Your task to perform on an android device: allow notifications from all sites in the chrome app Image 0: 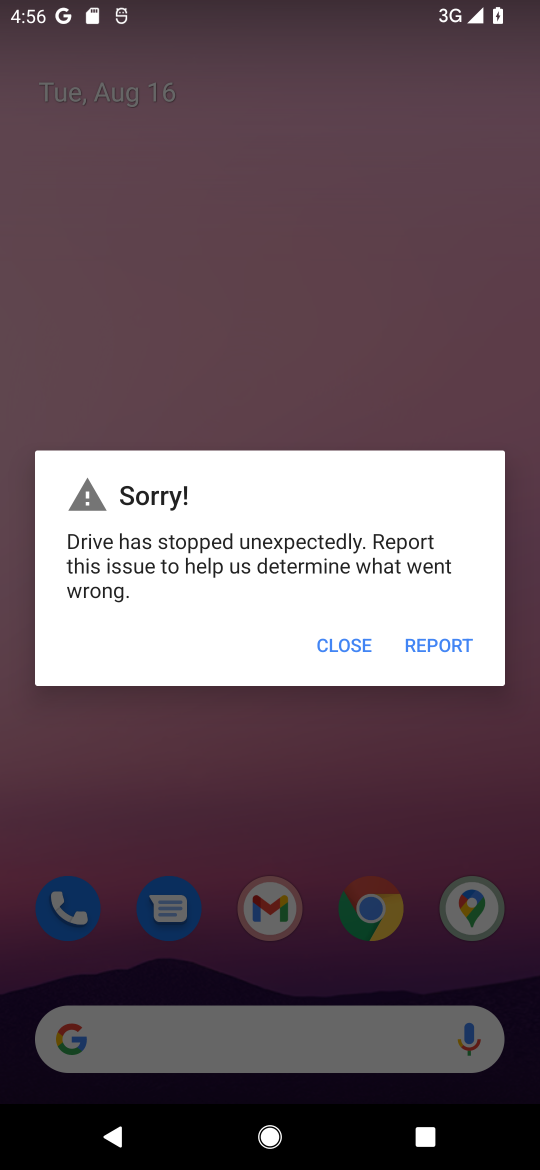
Step 0: click (341, 657)
Your task to perform on an android device: allow notifications from all sites in the chrome app Image 1: 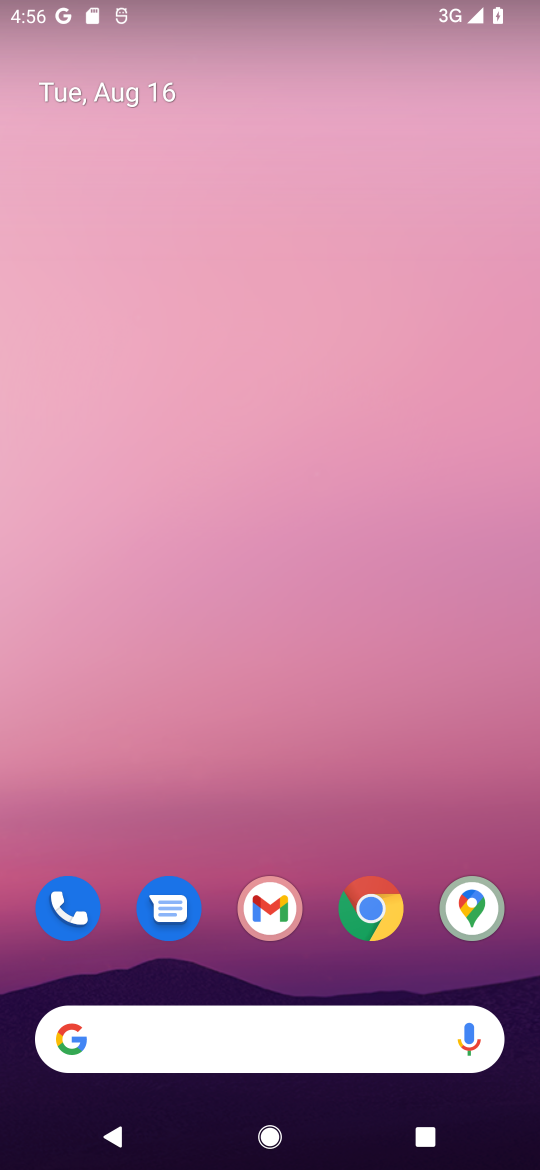
Step 1: click (382, 917)
Your task to perform on an android device: allow notifications from all sites in the chrome app Image 2: 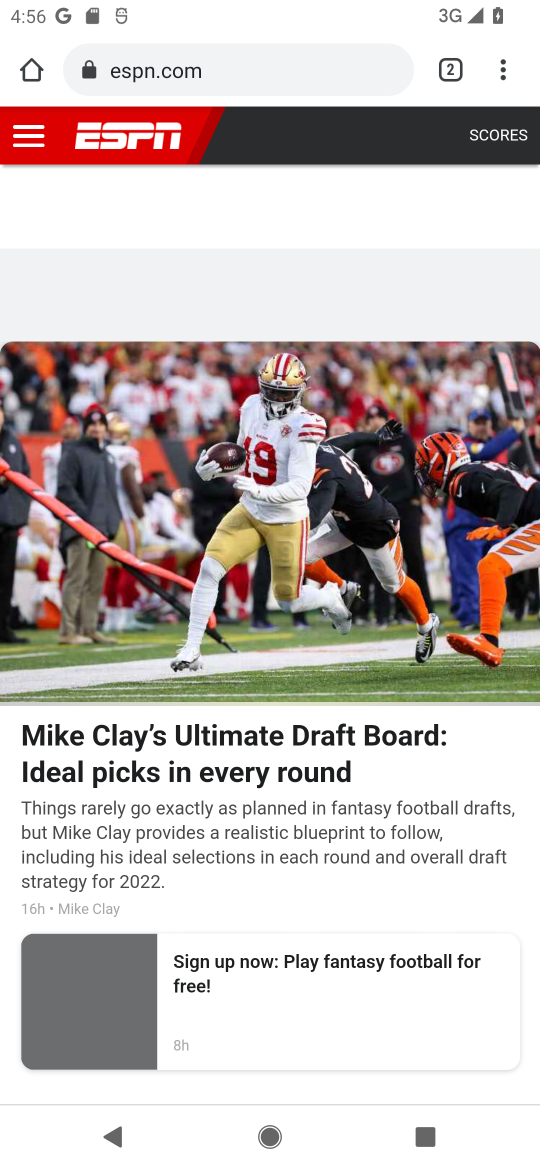
Step 2: drag from (498, 68) to (351, 948)
Your task to perform on an android device: allow notifications from all sites in the chrome app Image 3: 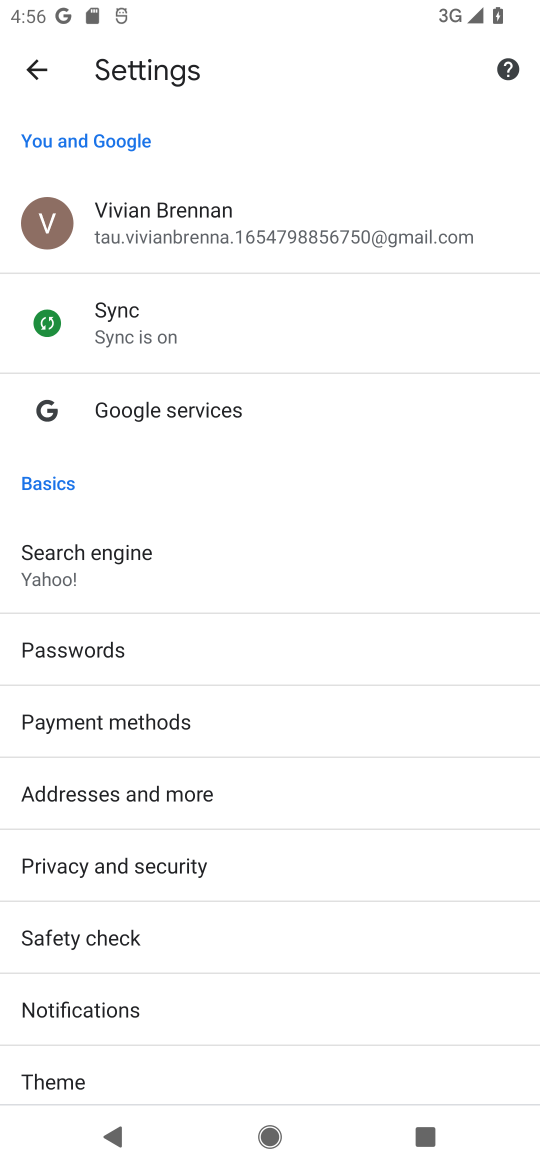
Step 3: click (221, 1016)
Your task to perform on an android device: allow notifications from all sites in the chrome app Image 4: 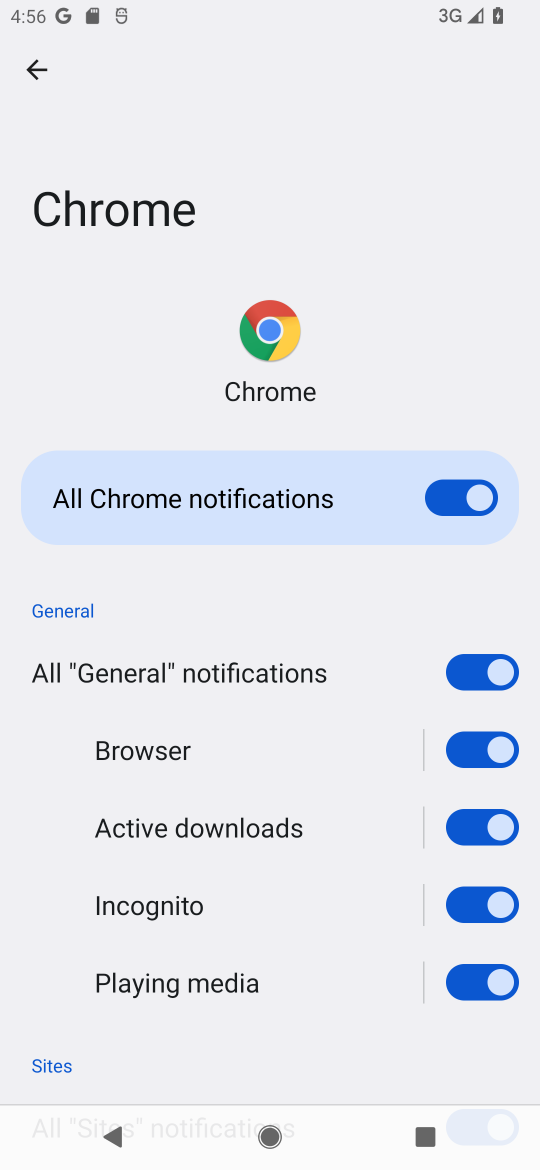
Step 4: task complete